Your task to perform on an android device: allow notifications from all sites in the chrome app Image 0: 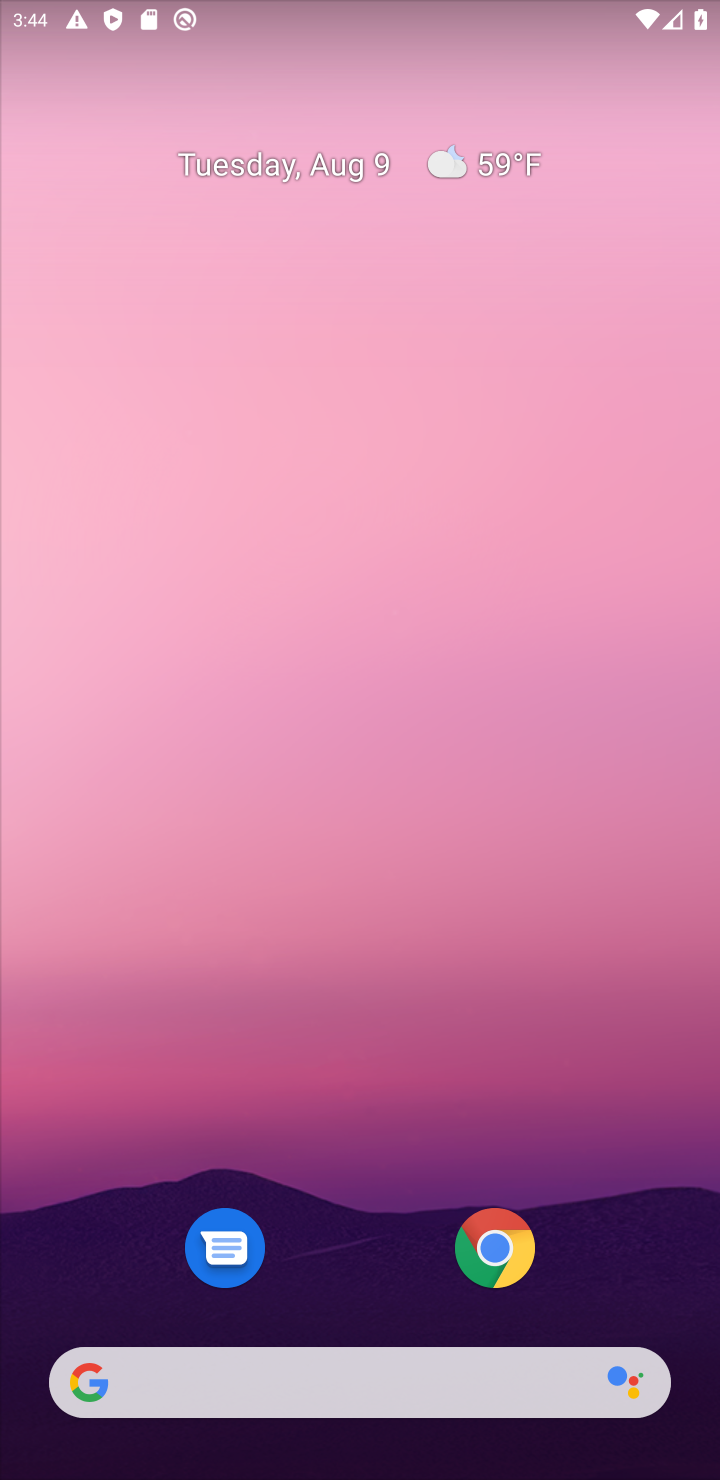
Step 0: drag from (353, 982) to (298, 470)
Your task to perform on an android device: allow notifications from all sites in the chrome app Image 1: 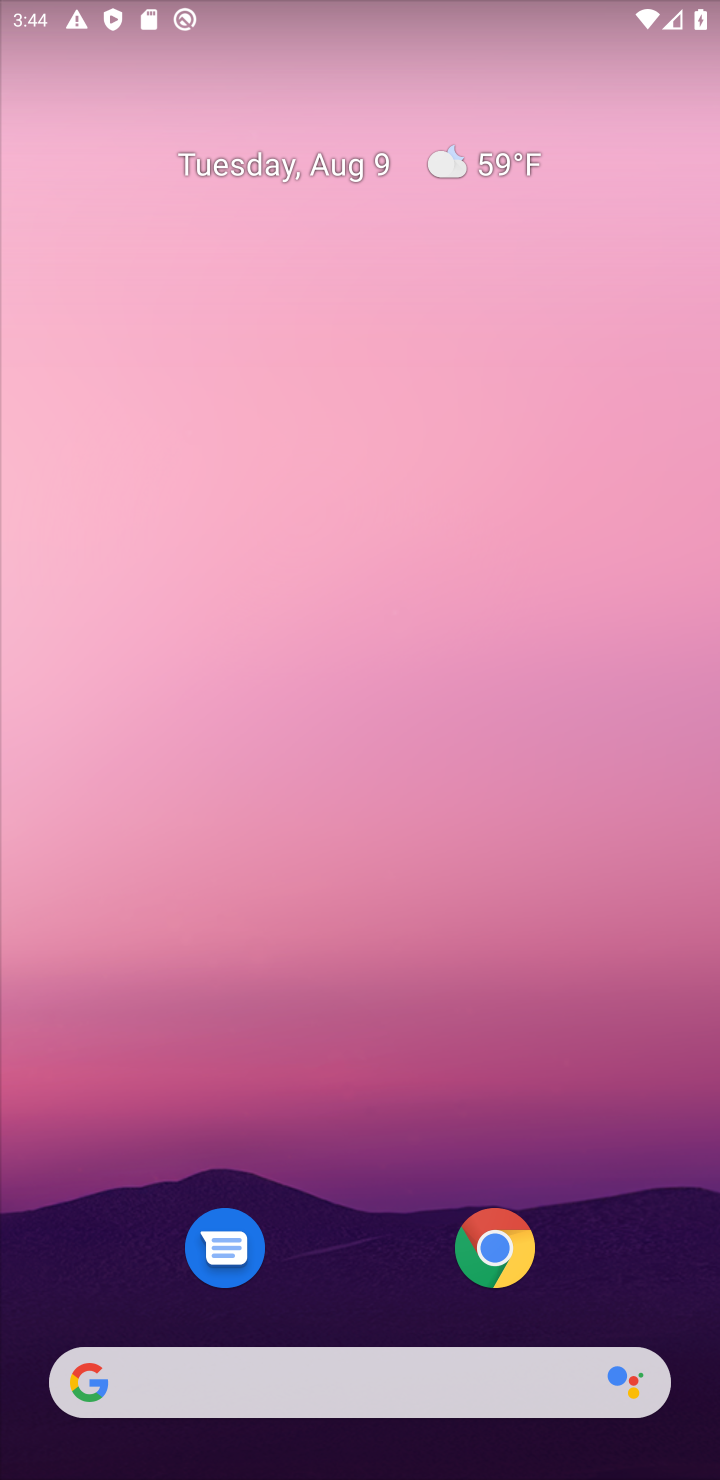
Step 1: drag from (367, 846) to (234, 254)
Your task to perform on an android device: allow notifications from all sites in the chrome app Image 2: 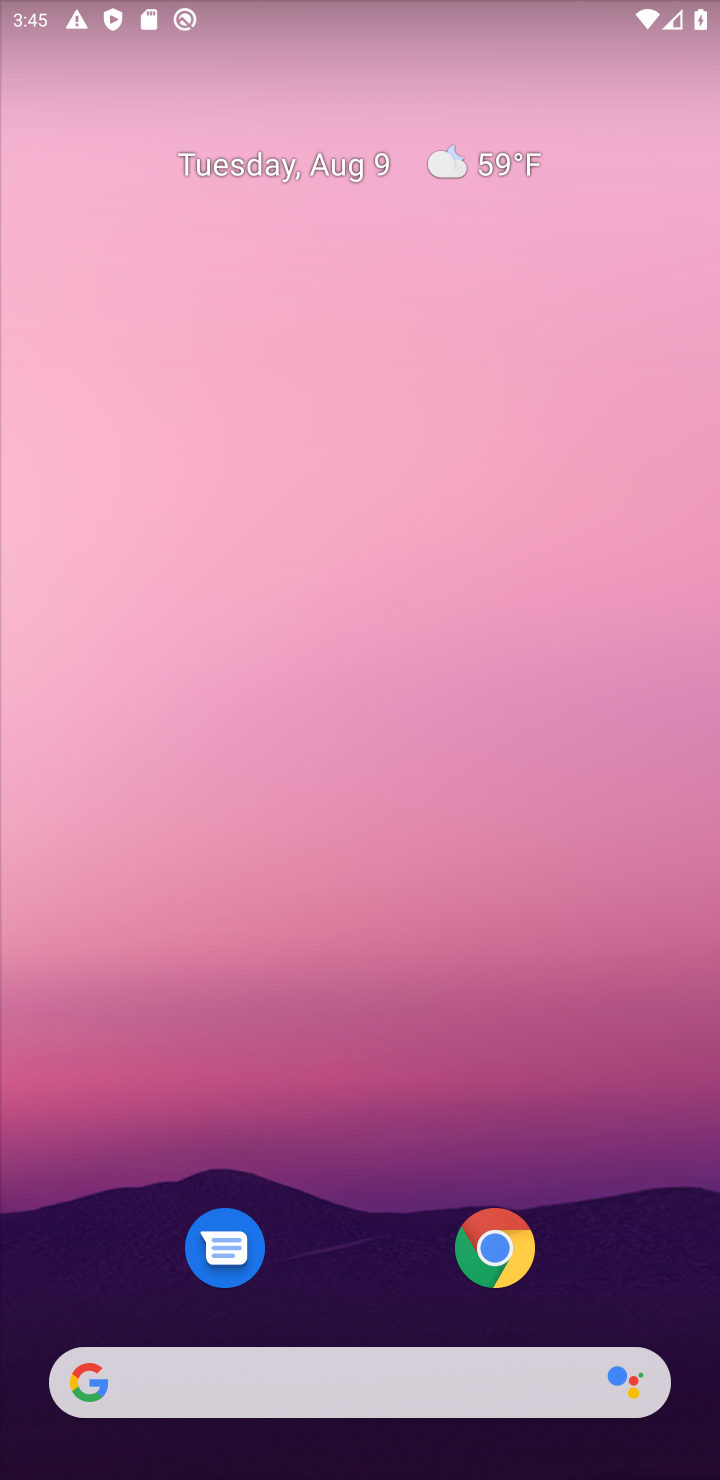
Step 2: drag from (316, 1283) to (22, 324)
Your task to perform on an android device: allow notifications from all sites in the chrome app Image 3: 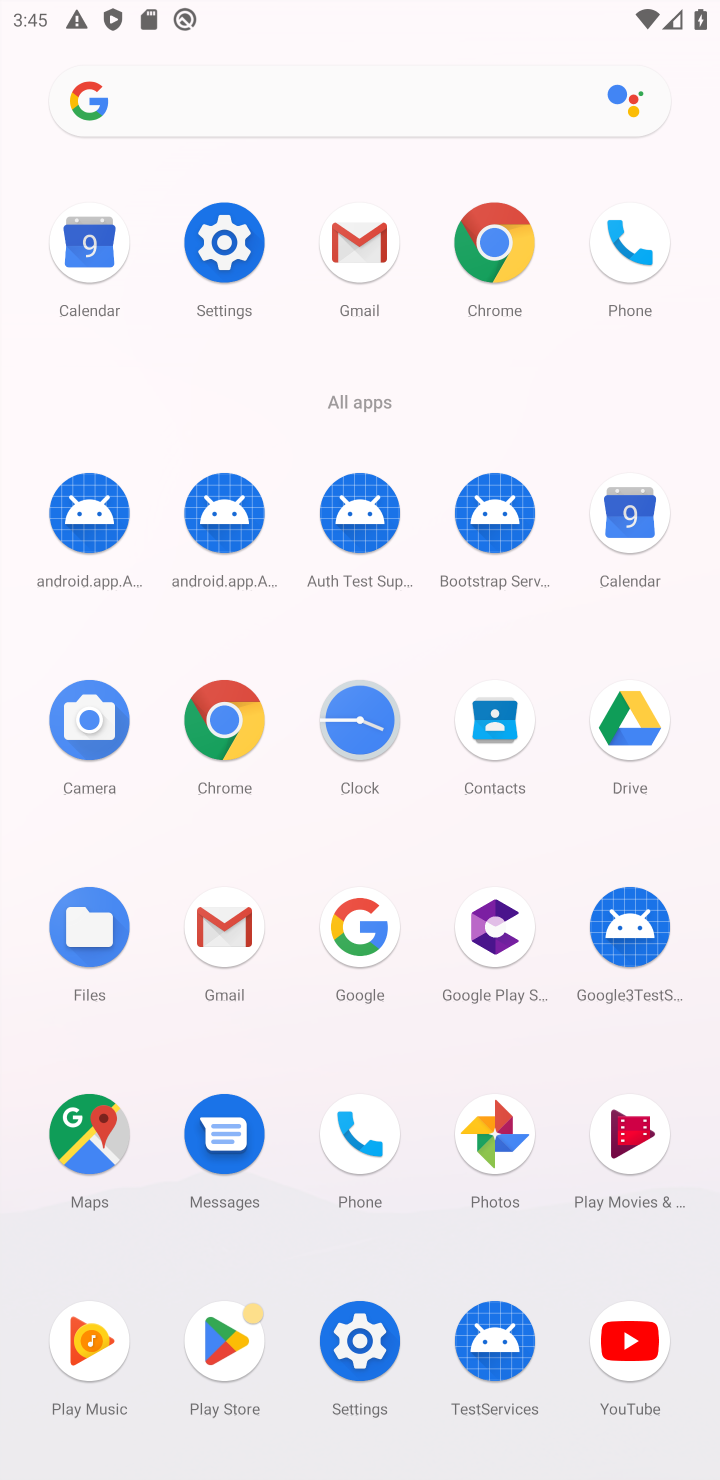
Step 3: click (229, 718)
Your task to perform on an android device: allow notifications from all sites in the chrome app Image 4: 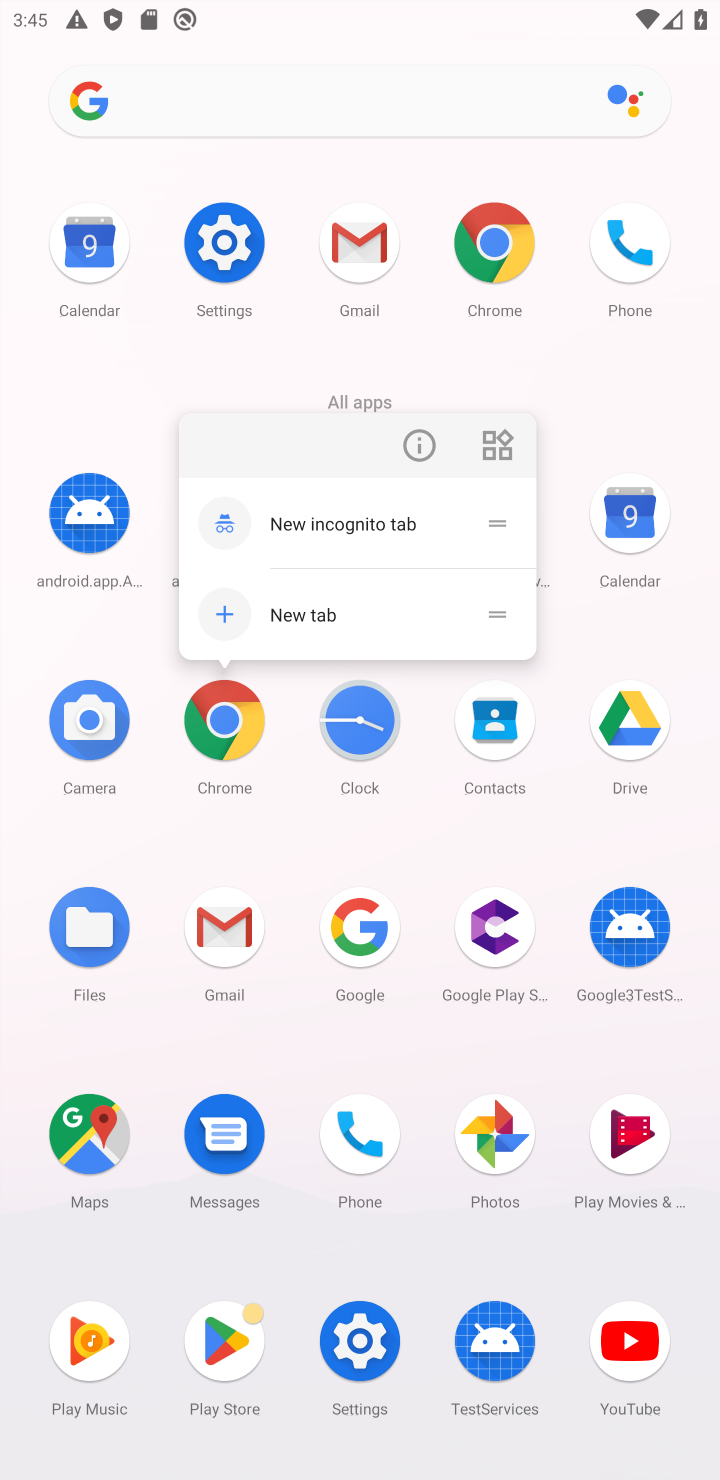
Step 4: click (217, 716)
Your task to perform on an android device: allow notifications from all sites in the chrome app Image 5: 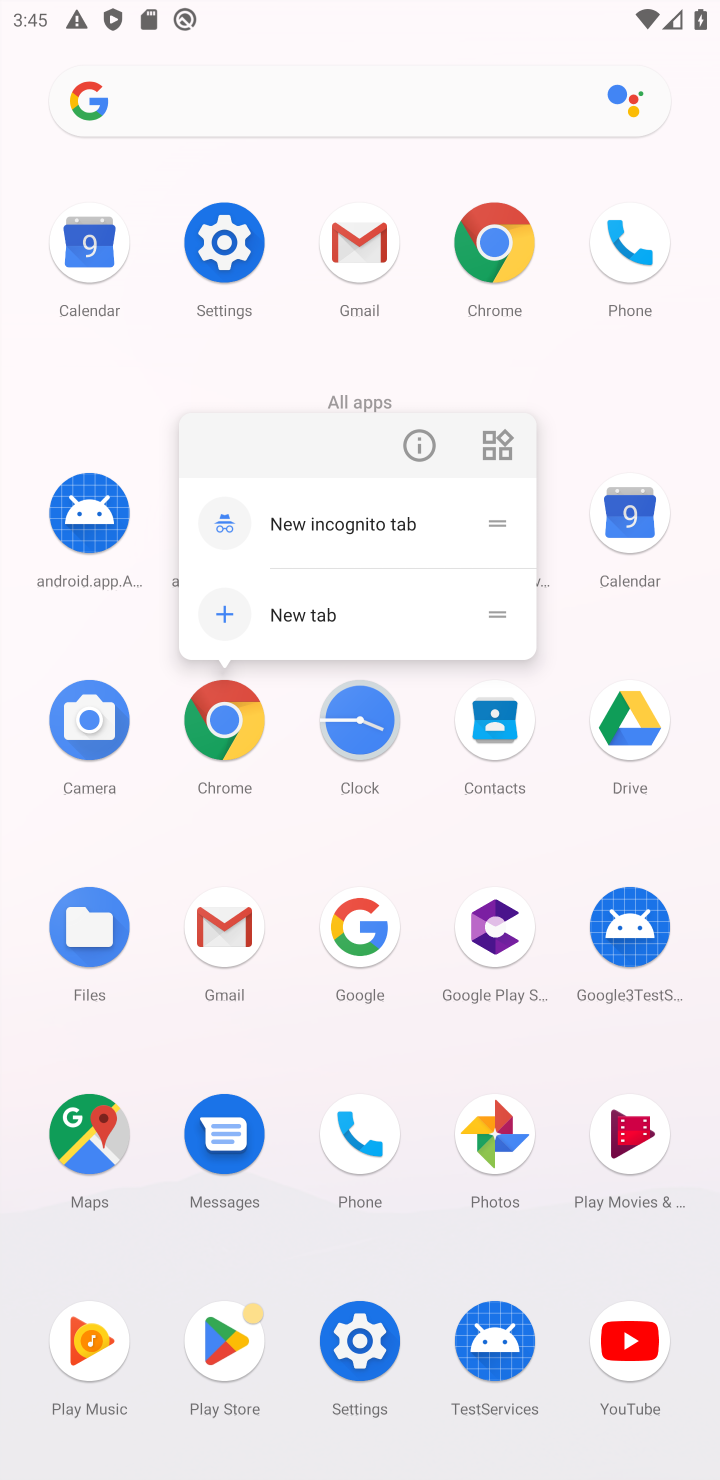
Step 5: click (302, 885)
Your task to perform on an android device: allow notifications from all sites in the chrome app Image 6: 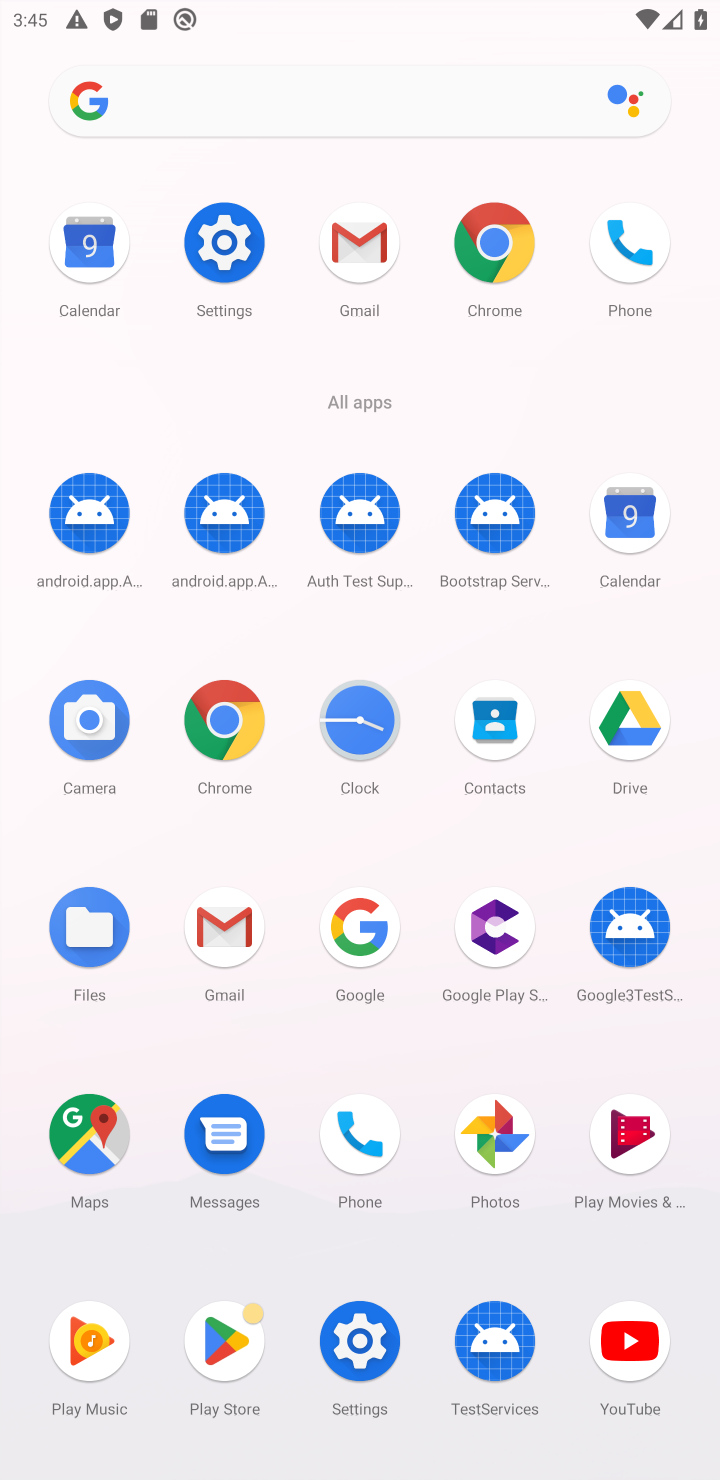
Step 6: click (227, 730)
Your task to perform on an android device: allow notifications from all sites in the chrome app Image 7: 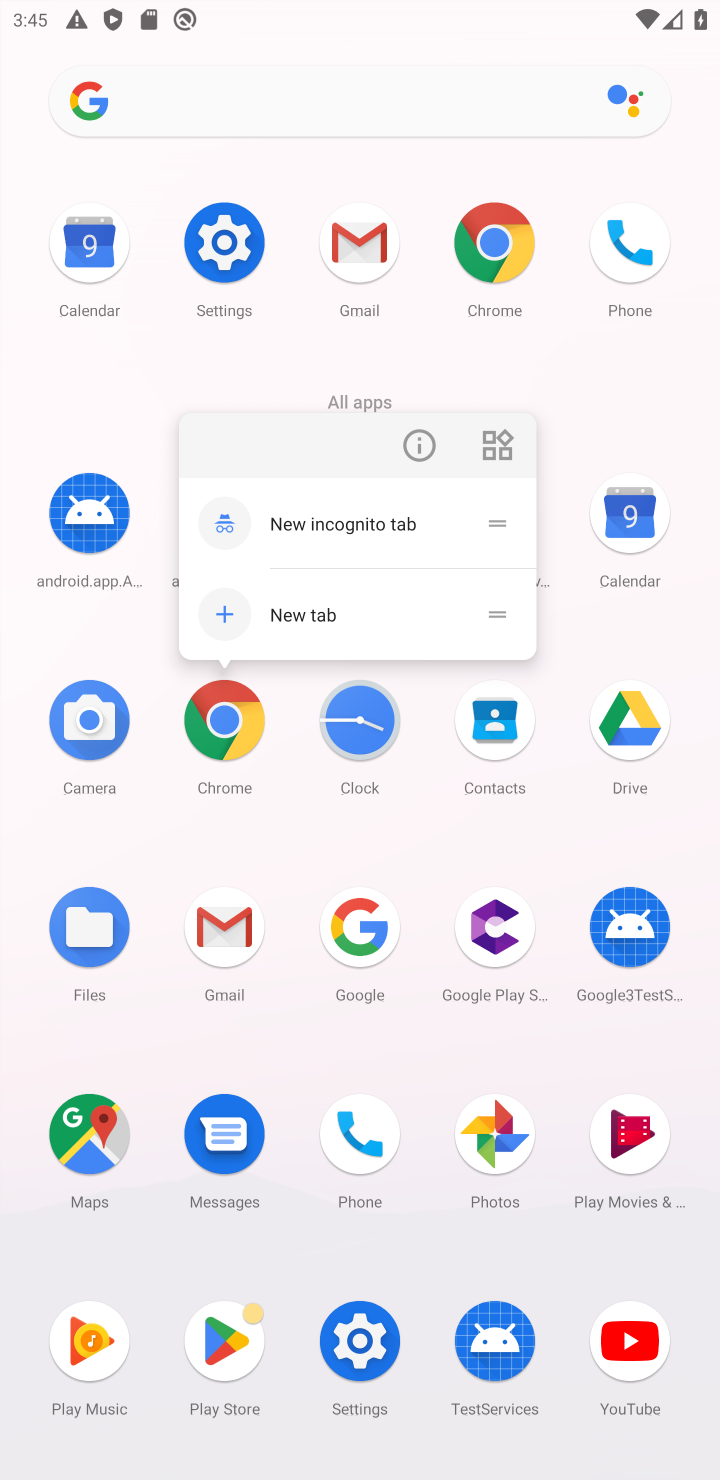
Step 7: click (227, 730)
Your task to perform on an android device: allow notifications from all sites in the chrome app Image 8: 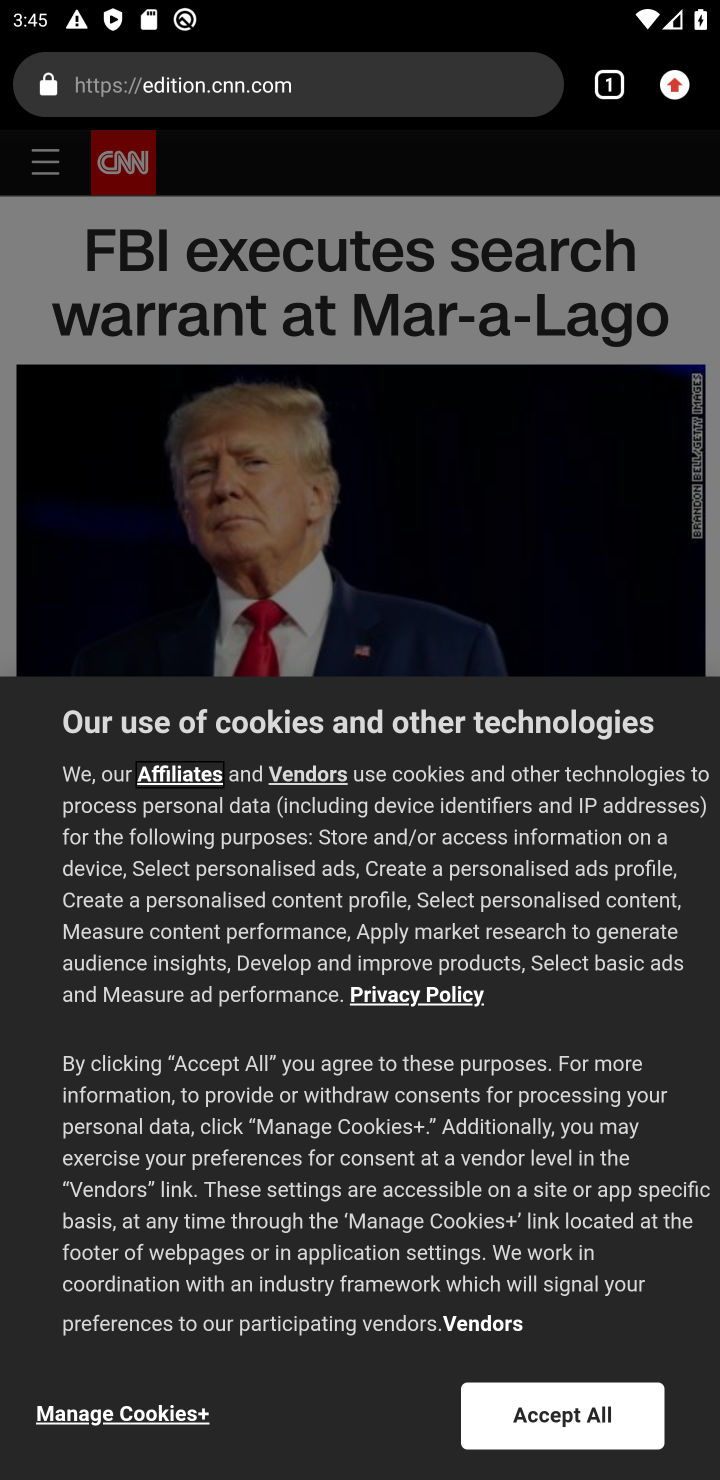
Step 8: drag from (711, 99) to (365, 1016)
Your task to perform on an android device: allow notifications from all sites in the chrome app Image 9: 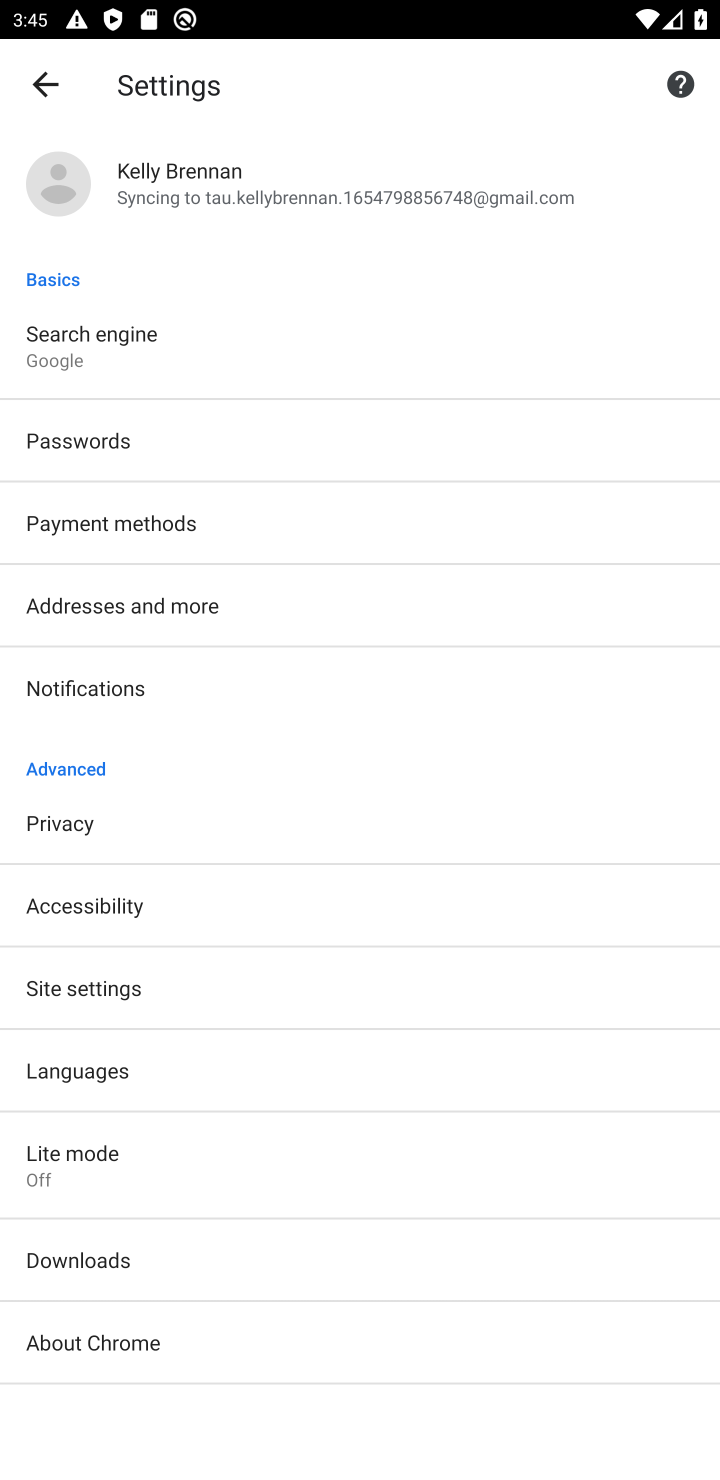
Step 9: click (173, 682)
Your task to perform on an android device: allow notifications from all sites in the chrome app Image 10: 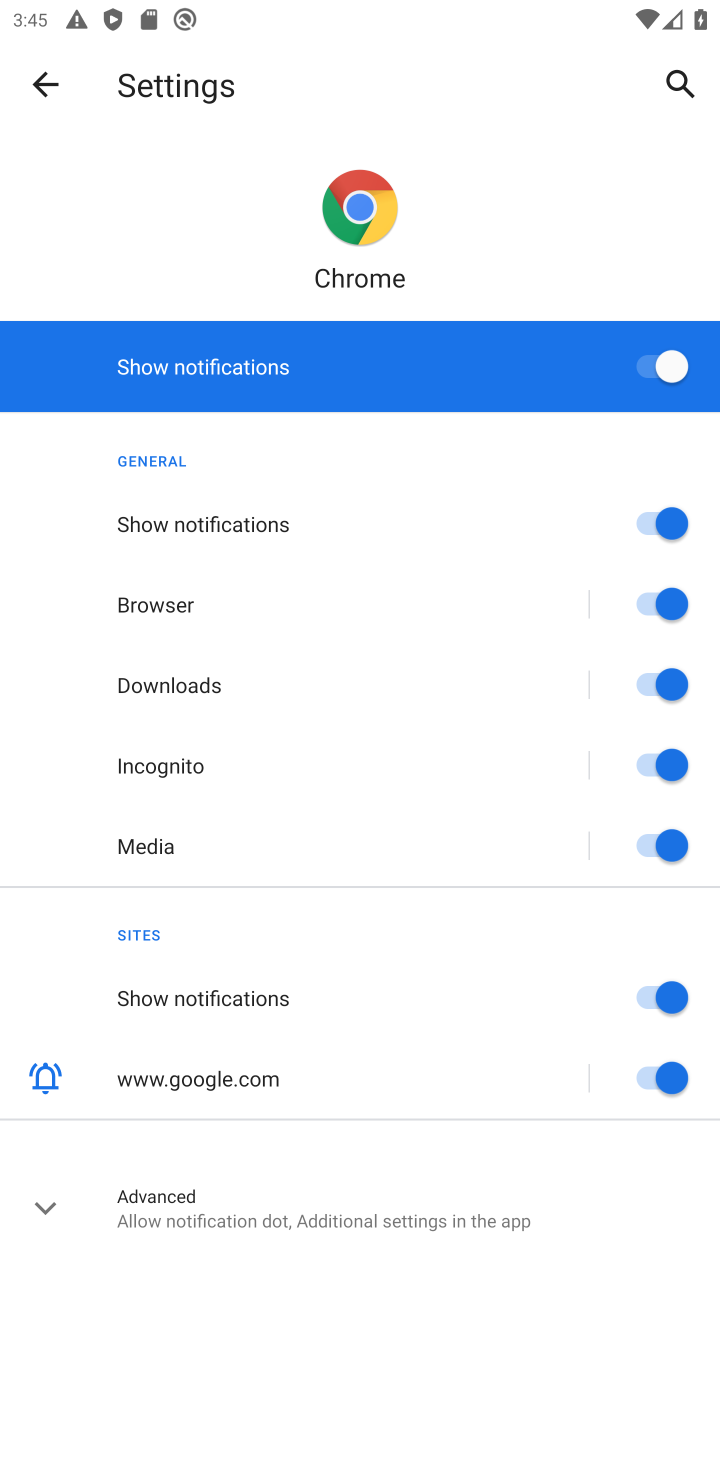
Step 10: task complete